Your task to perform on an android device: Open battery settings Image 0: 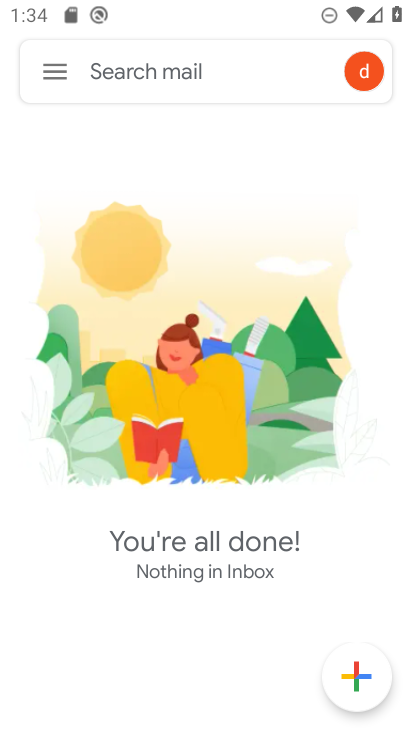
Step 0: press home button
Your task to perform on an android device: Open battery settings Image 1: 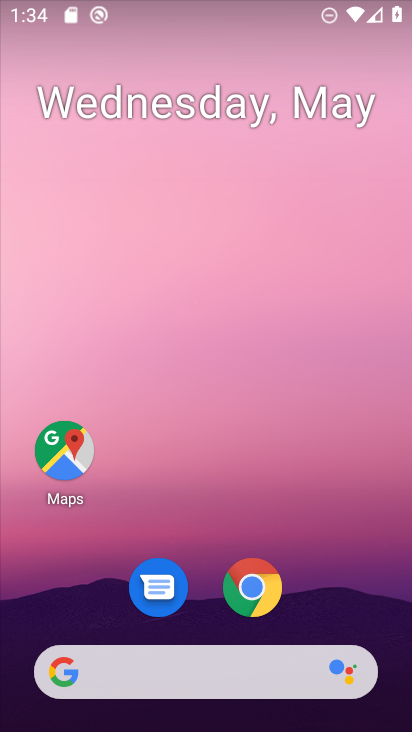
Step 1: drag from (325, 597) to (279, 180)
Your task to perform on an android device: Open battery settings Image 2: 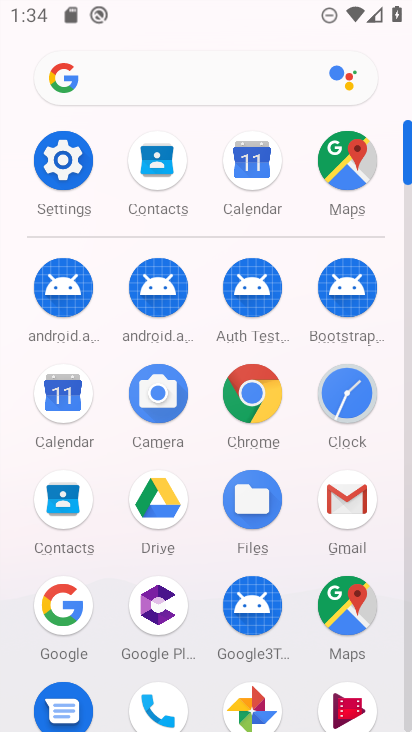
Step 2: click (56, 202)
Your task to perform on an android device: Open battery settings Image 3: 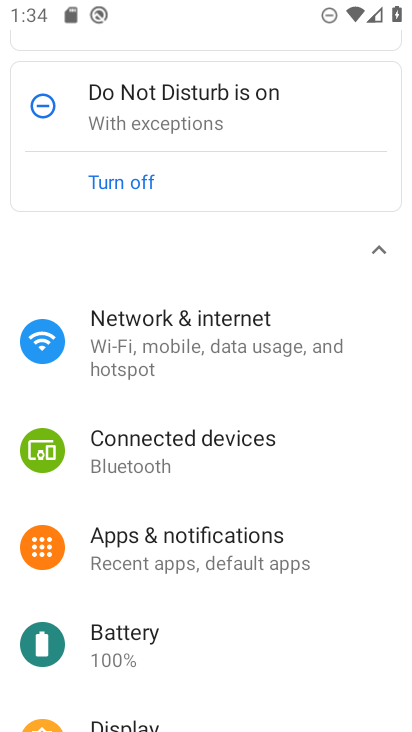
Step 3: click (125, 650)
Your task to perform on an android device: Open battery settings Image 4: 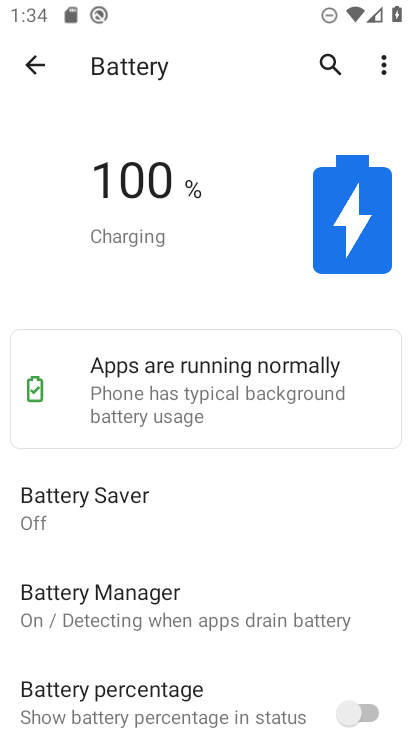
Step 4: task complete